Your task to perform on an android device: Search for a new skincare product Image 0: 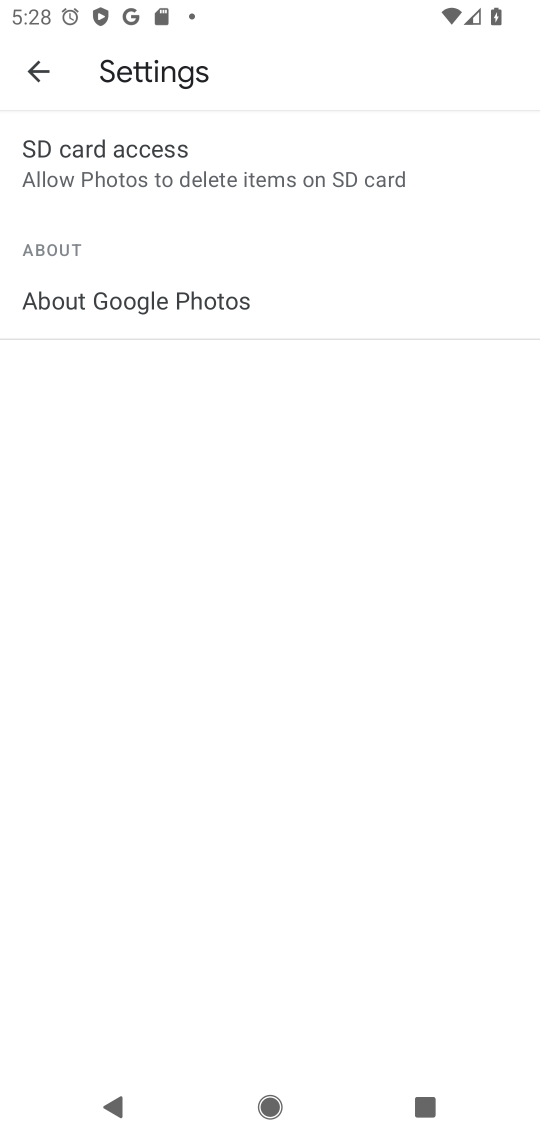
Step 0: press home button
Your task to perform on an android device: Search for a new skincare product Image 1: 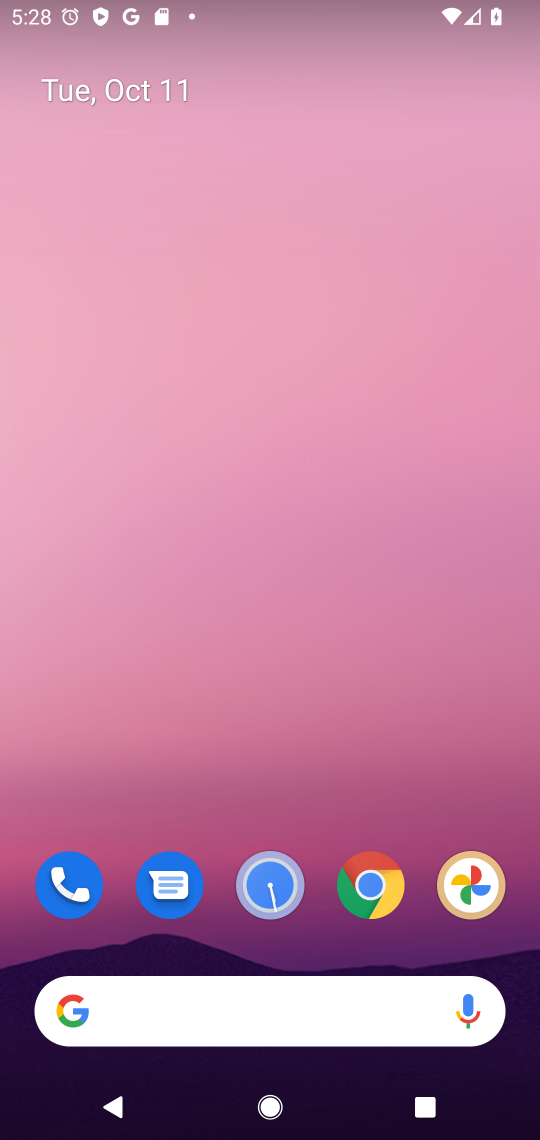
Step 1: drag from (211, 688) to (231, 21)
Your task to perform on an android device: Search for a new skincare product Image 2: 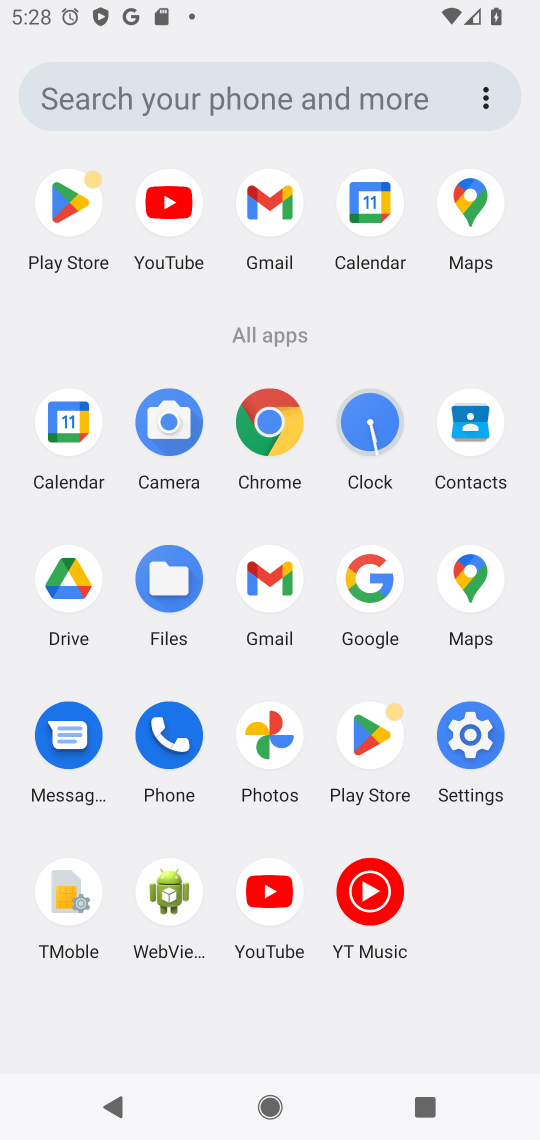
Step 2: click (284, 414)
Your task to perform on an android device: Search for a new skincare product Image 3: 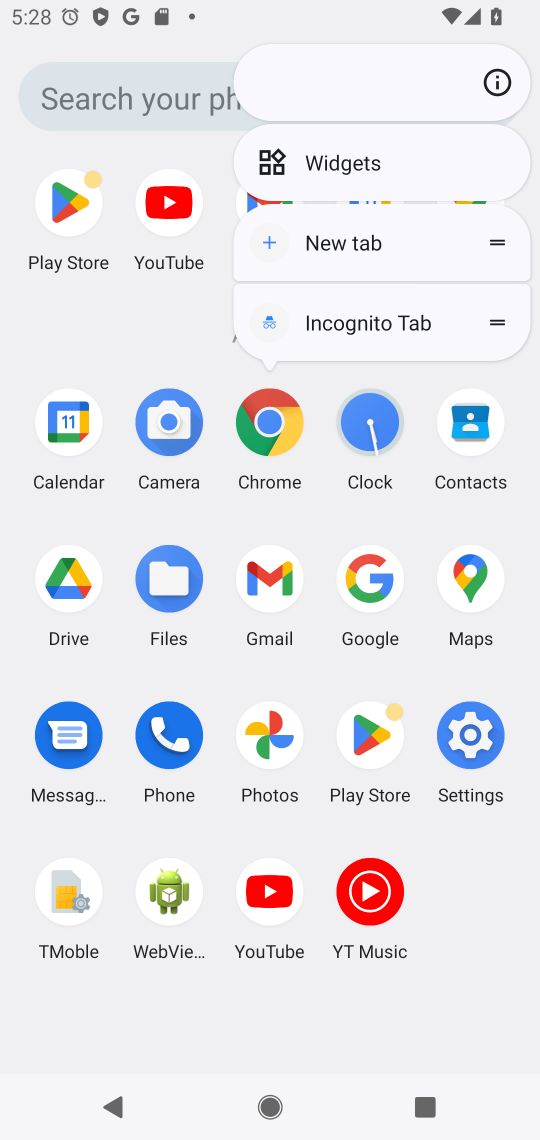
Step 3: click (111, 108)
Your task to perform on an android device: Search for a new skincare product Image 4: 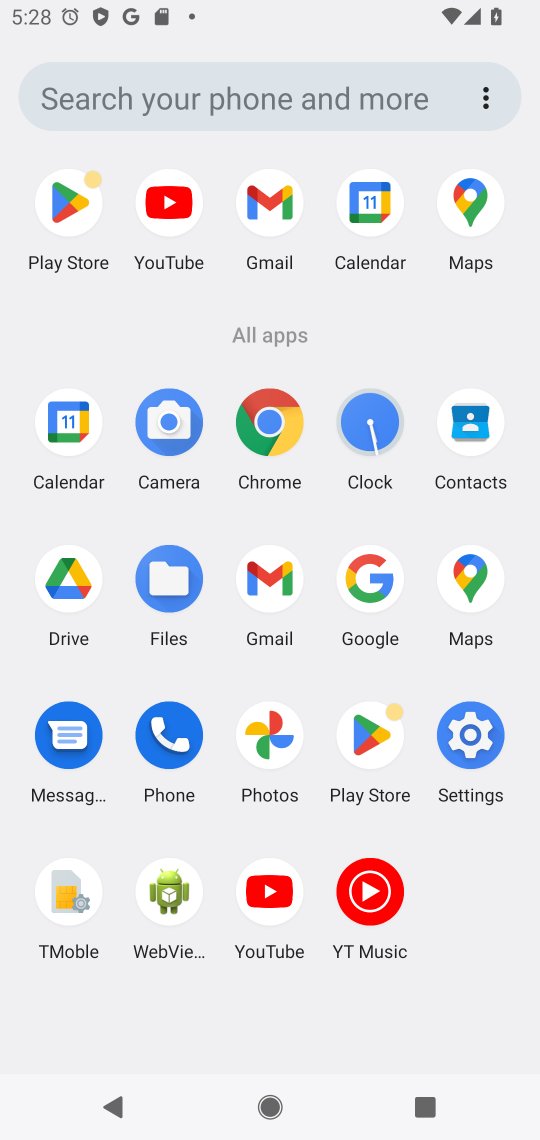
Step 4: click (285, 448)
Your task to perform on an android device: Search for a new skincare product Image 5: 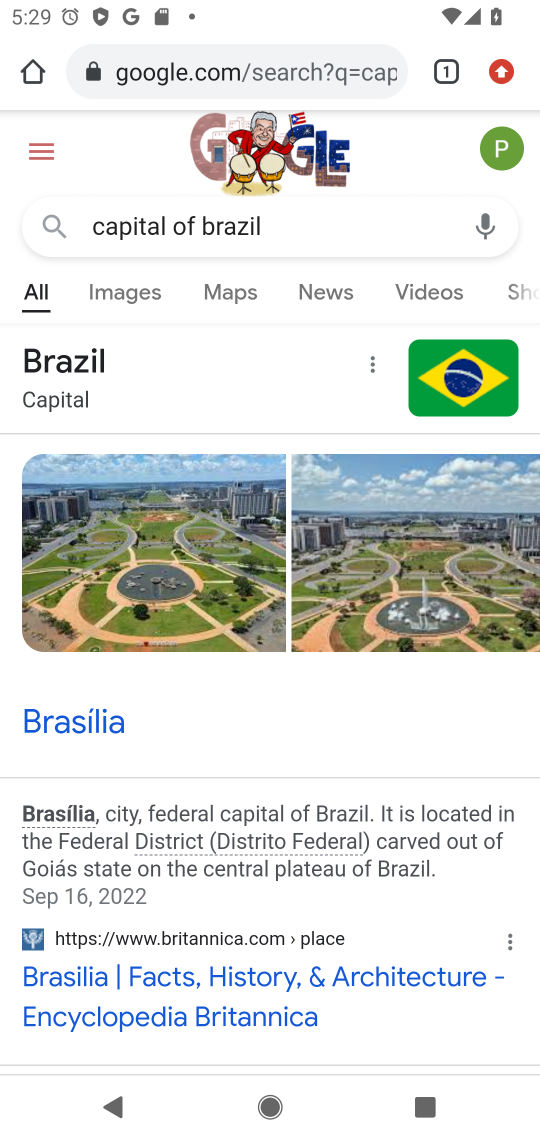
Step 5: click (136, 80)
Your task to perform on an android device: Search for a new skincare product Image 6: 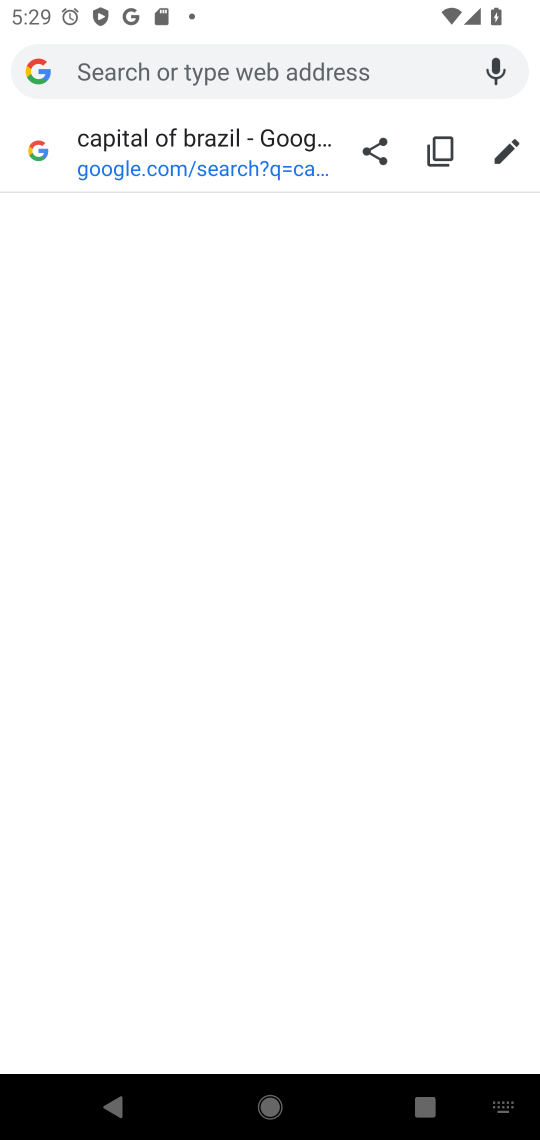
Step 6: type "new skincare product"
Your task to perform on an android device: Search for a new skincare product Image 7: 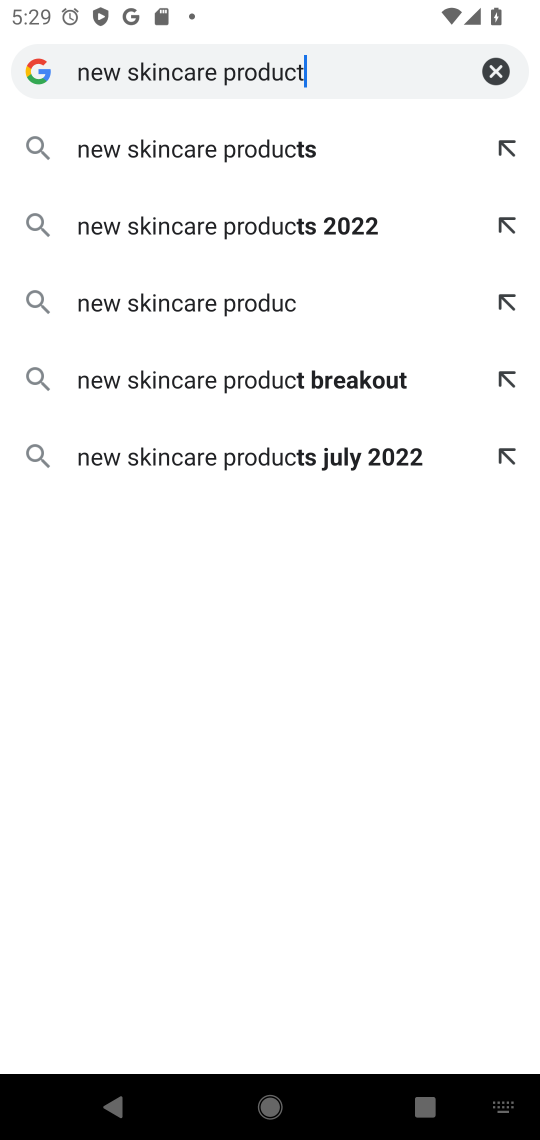
Step 7: press enter
Your task to perform on an android device: Search for a new skincare product Image 8: 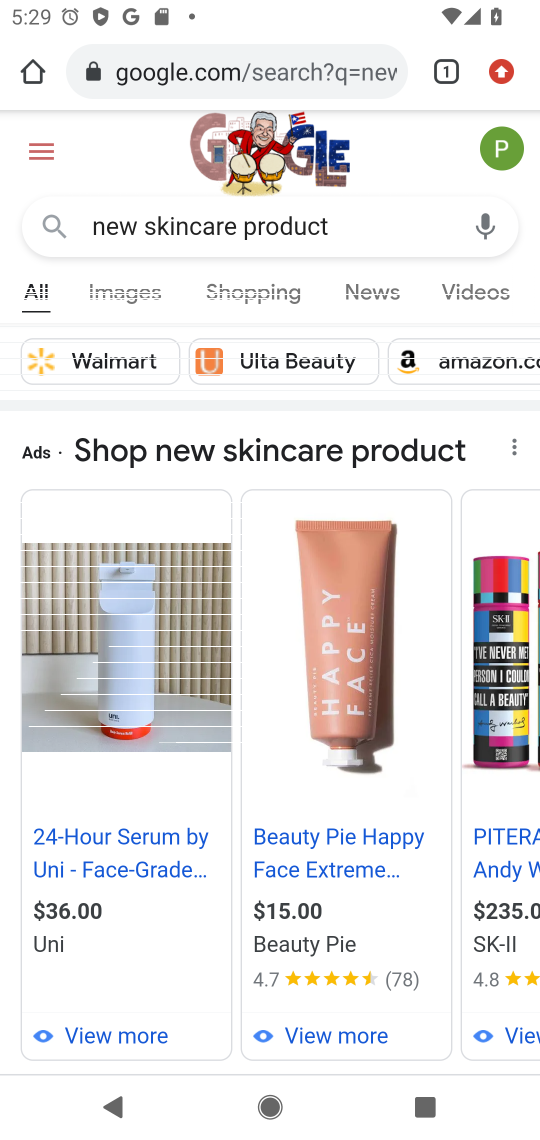
Step 8: task complete